Your task to perform on an android device: move an email to a new category in the gmail app Image 0: 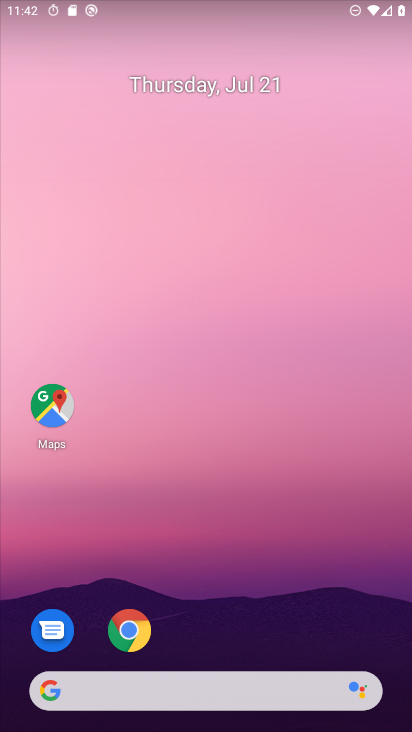
Step 0: press home button
Your task to perform on an android device: move an email to a new category in the gmail app Image 1: 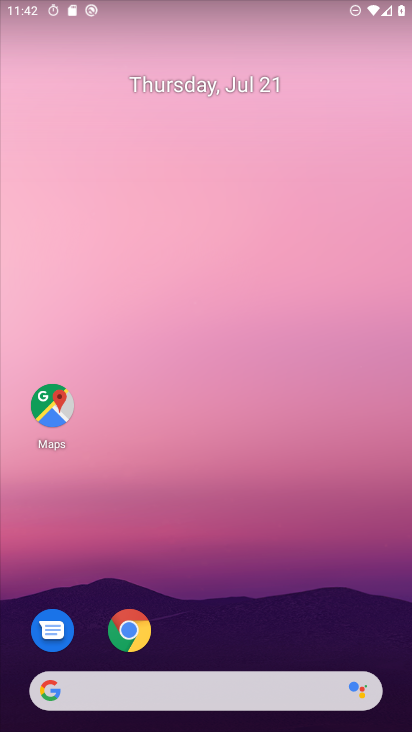
Step 1: drag from (279, 625) to (247, 90)
Your task to perform on an android device: move an email to a new category in the gmail app Image 2: 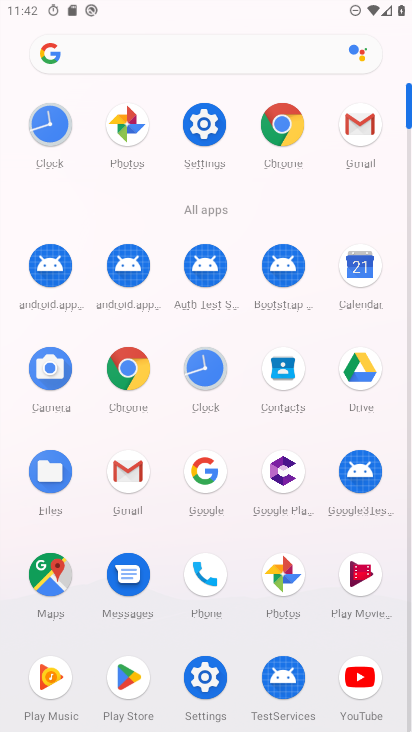
Step 2: click (353, 129)
Your task to perform on an android device: move an email to a new category in the gmail app Image 3: 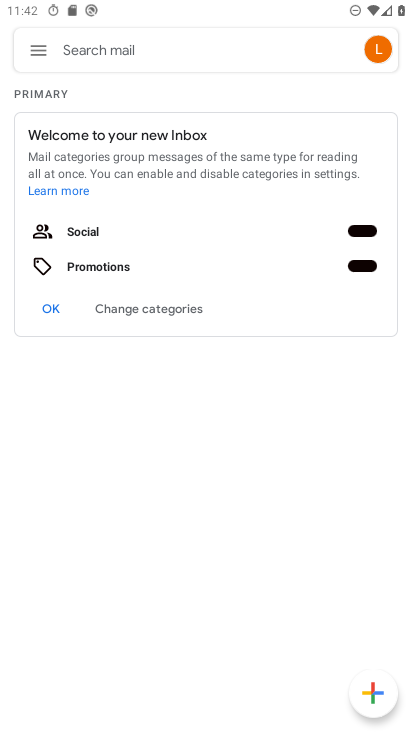
Step 3: click (28, 50)
Your task to perform on an android device: move an email to a new category in the gmail app Image 4: 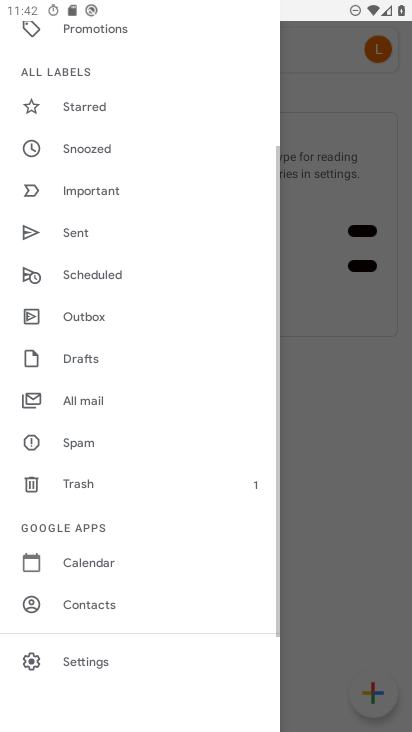
Step 4: click (79, 394)
Your task to perform on an android device: move an email to a new category in the gmail app Image 5: 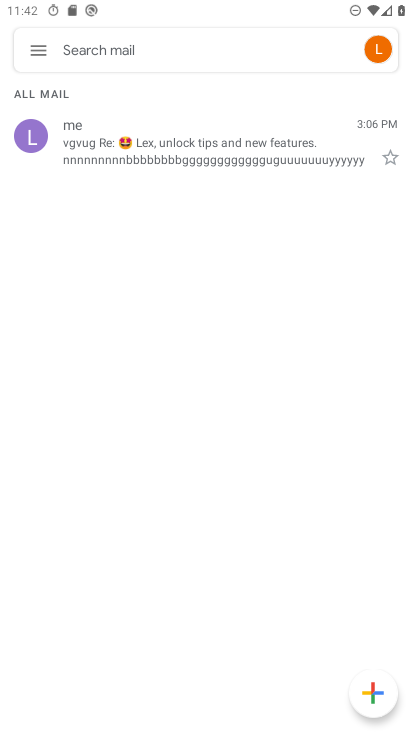
Step 5: click (231, 149)
Your task to perform on an android device: move an email to a new category in the gmail app Image 6: 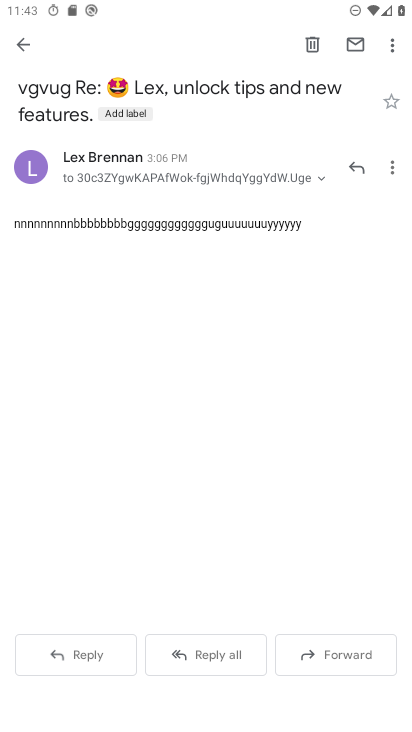
Step 6: click (391, 41)
Your task to perform on an android device: move an email to a new category in the gmail app Image 7: 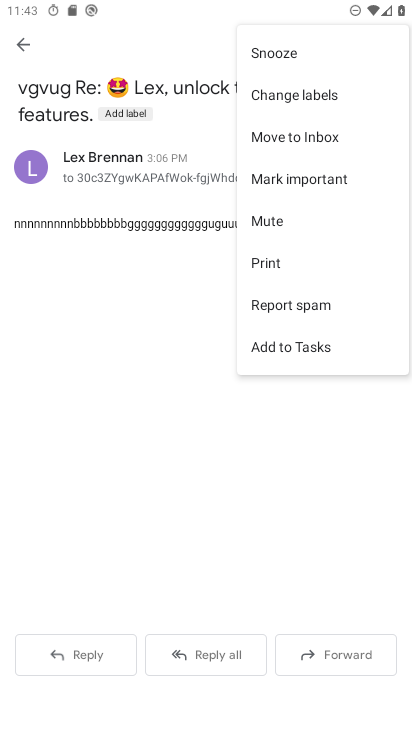
Step 7: click (297, 132)
Your task to perform on an android device: move an email to a new category in the gmail app Image 8: 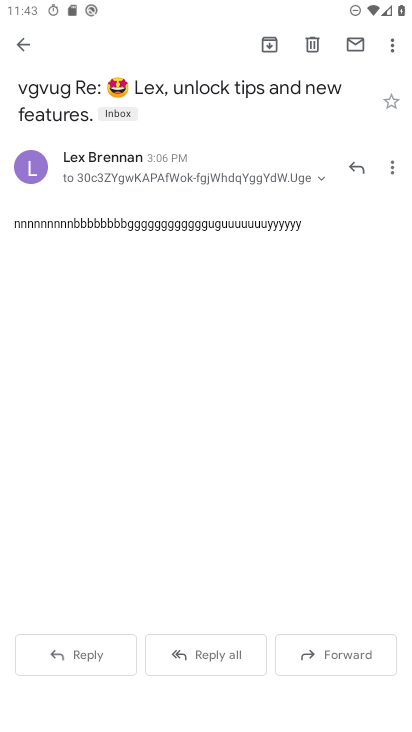
Step 8: task complete